Your task to perform on an android device: open chrome privacy settings Image 0: 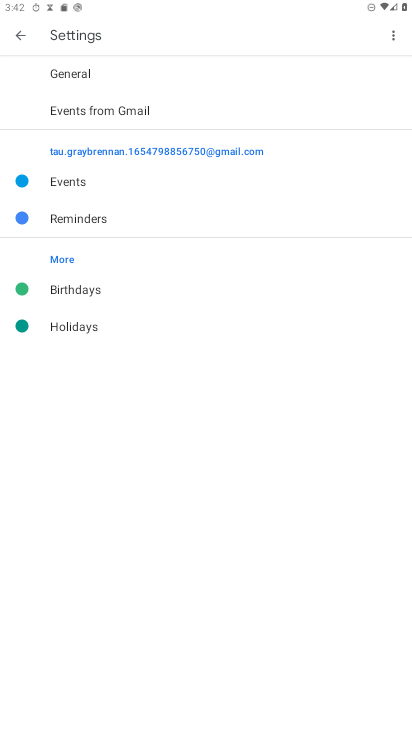
Step 0: press home button
Your task to perform on an android device: open chrome privacy settings Image 1: 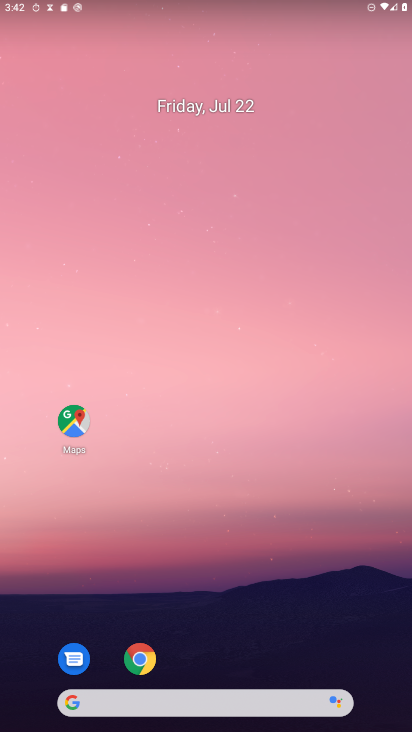
Step 1: drag from (241, 611) to (249, 233)
Your task to perform on an android device: open chrome privacy settings Image 2: 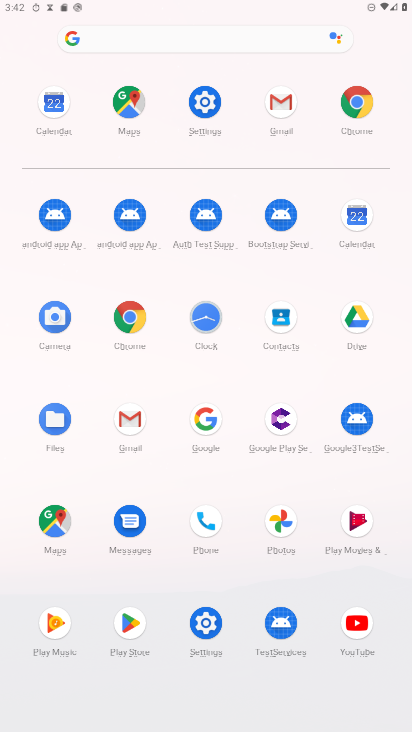
Step 2: click (359, 110)
Your task to perform on an android device: open chrome privacy settings Image 3: 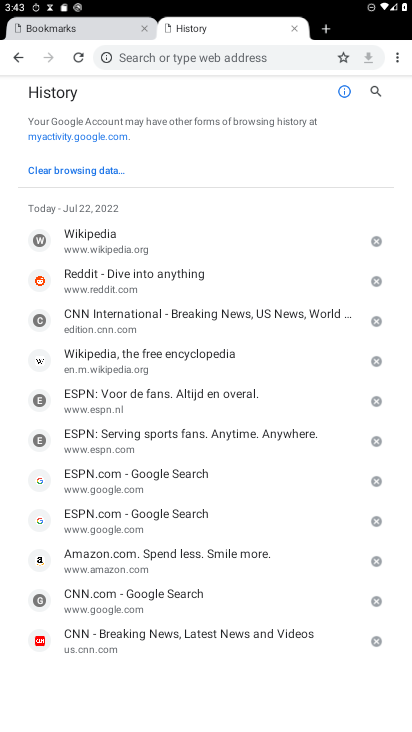
Step 3: drag from (397, 56) to (281, 263)
Your task to perform on an android device: open chrome privacy settings Image 4: 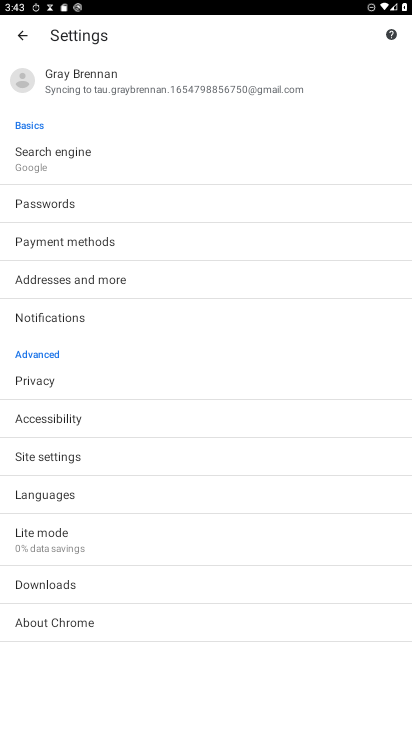
Step 4: click (3, 388)
Your task to perform on an android device: open chrome privacy settings Image 5: 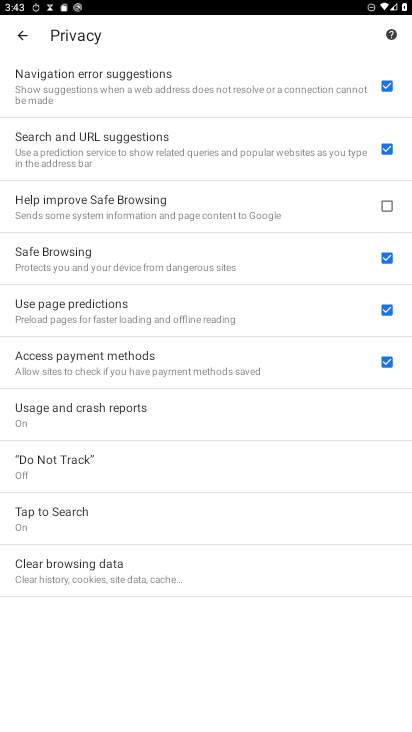
Step 5: task complete